Your task to perform on an android device: remove spam from my inbox in the gmail app Image 0: 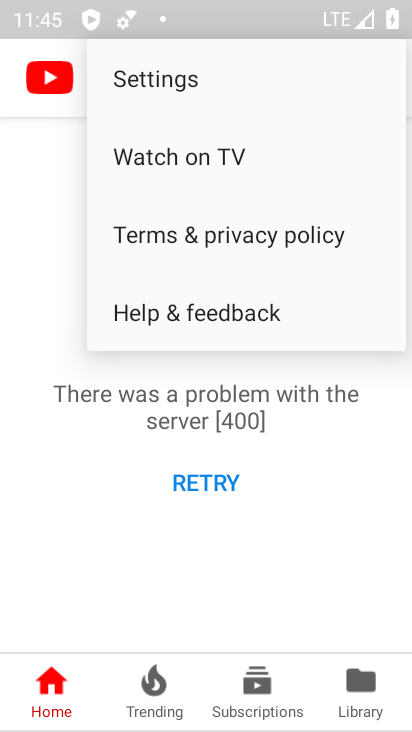
Step 0: press home button
Your task to perform on an android device: remove spam from my inbox in the gmail app Image 1: 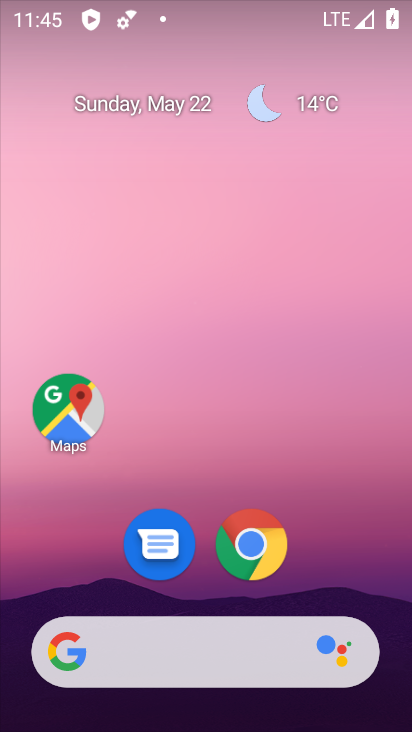
Step 1: drag from (300, 536) to (232, 122)
Your task to perform on an android device: remove spam from my inbox in the gmail app Image 2: 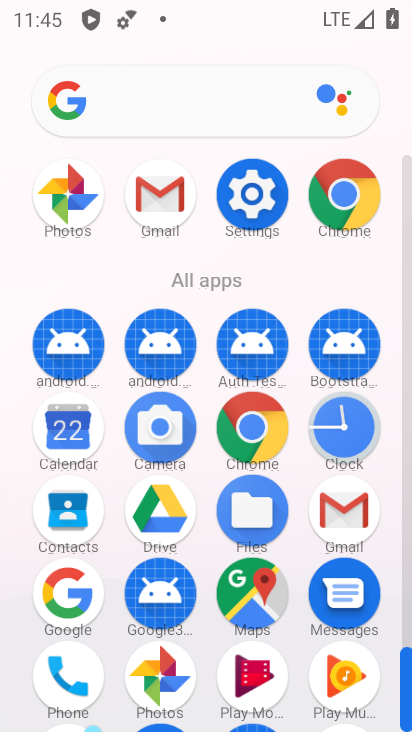
Step 2: click (159, 196)
Your task to perform on an android device: remove spam from my inbox in the gmail app Image 3: 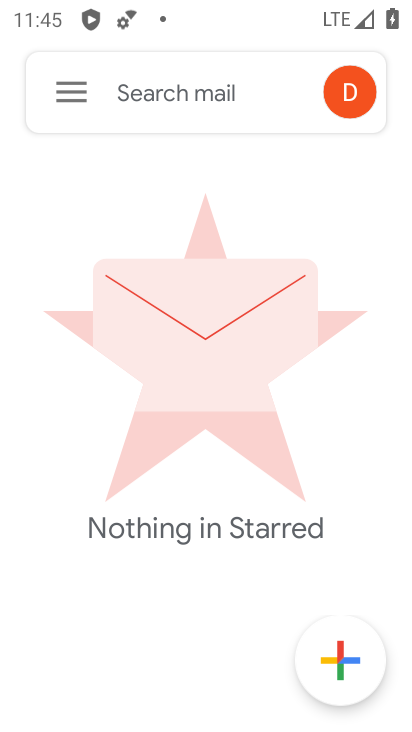
Step 3: click (72, 101)
Your task to perform on an android device: remove spam from my inbox in the gmail app Image 4: 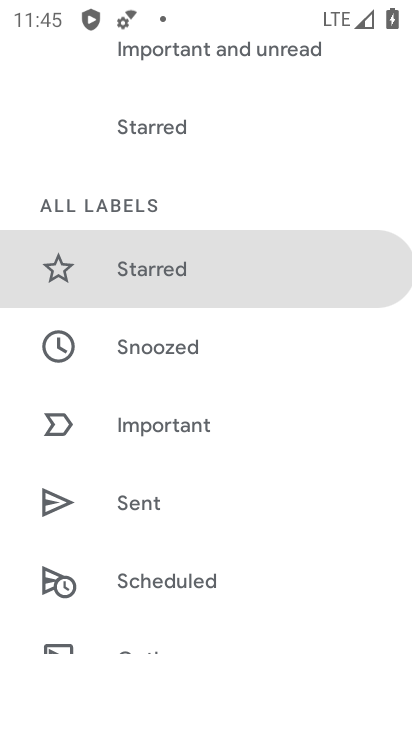
Step 4: drag from (187, 566) to (159, 321)
Your task to perform on an android device: remove spam from my inbox in the gmail app Image 5: 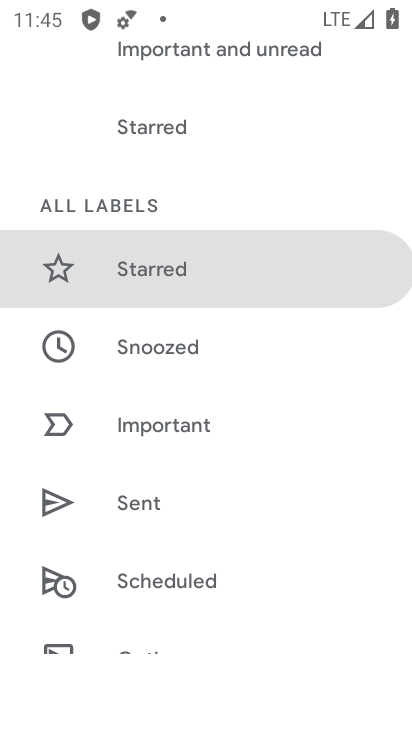
Step 5: drag from (165, 602) to (246, 229)
Your task to perform on an android device: remove spam from my inbox in the gmail app Image 6: 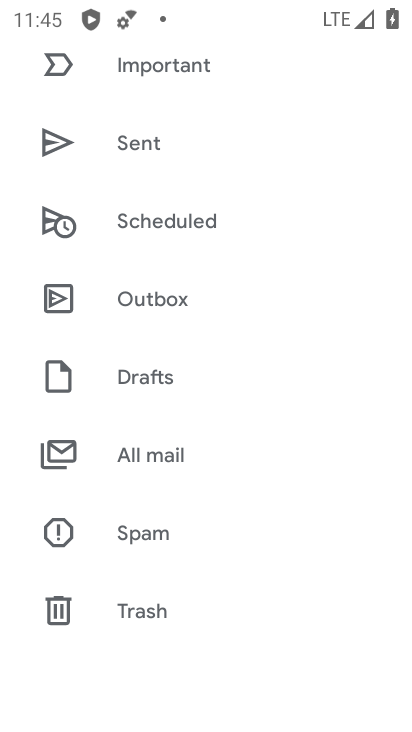
Step 6: drag from (181, 522) to (219, 180)
Your task to perform on an android device: remove spam from my inbox in the gmail app Image 7: 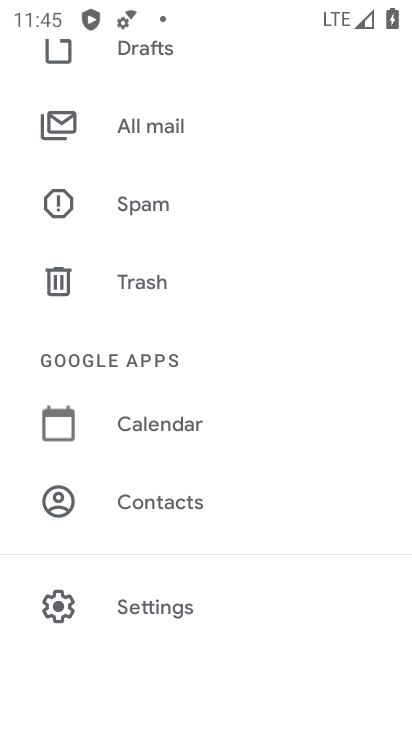
Step 7: click (176, 191)
Your task to perform on an android device: remove spam from my inbox in the gmail app Image 8: 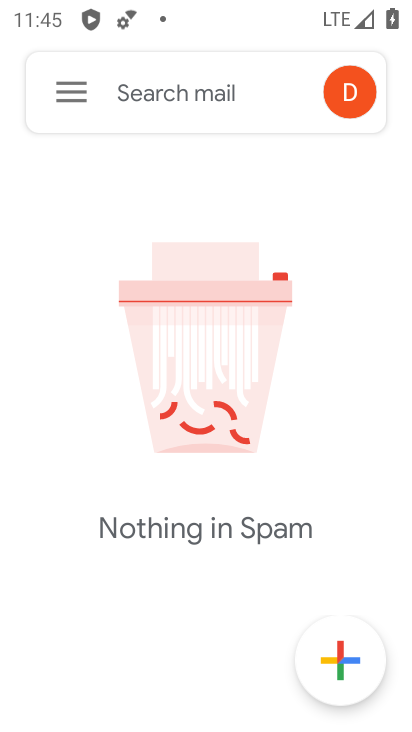
Step 8: task complete